Your task to perform on an android device: turn on the 24-hour format for clock Image 0: 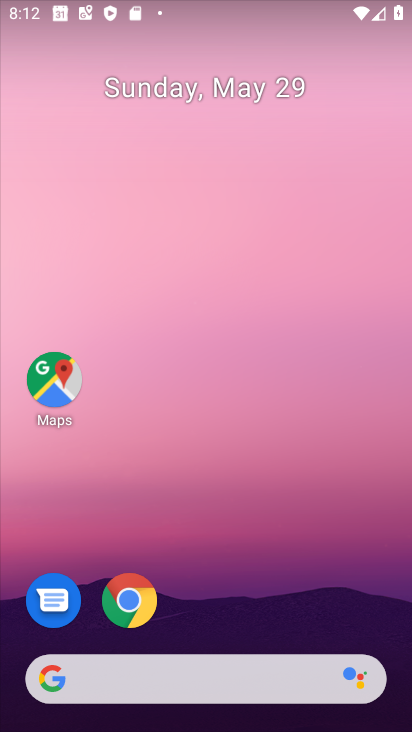
Step 0: drag from (302, 543) to (274, 135)
Your task to perform on an android device: turn on the 24-hour format for clock Image 1: 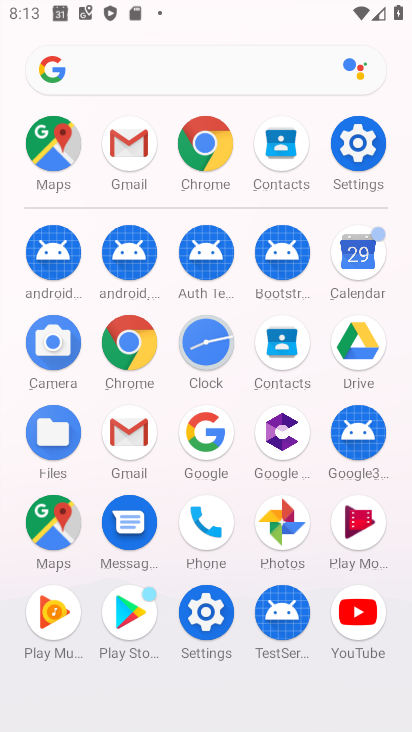
Step 1: click (223, 351)
Your task to perform on an android device: turn on the 24-hour format for clock Image 2: 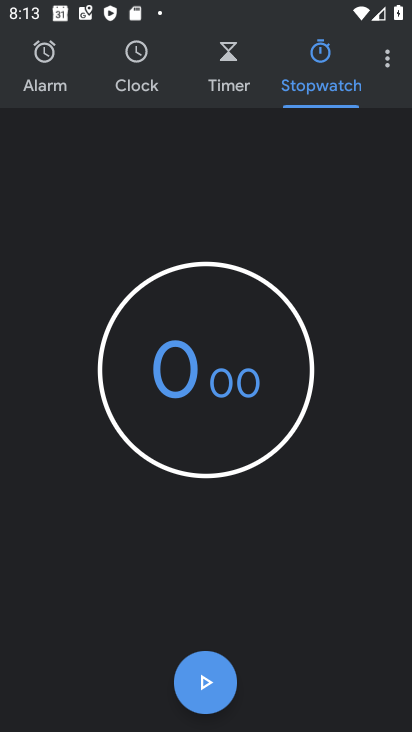
Step 2: drag from (388, 71) to (279, 116)
Your task to perform on an android device: turn on the 24-hour format for clock Image 3: 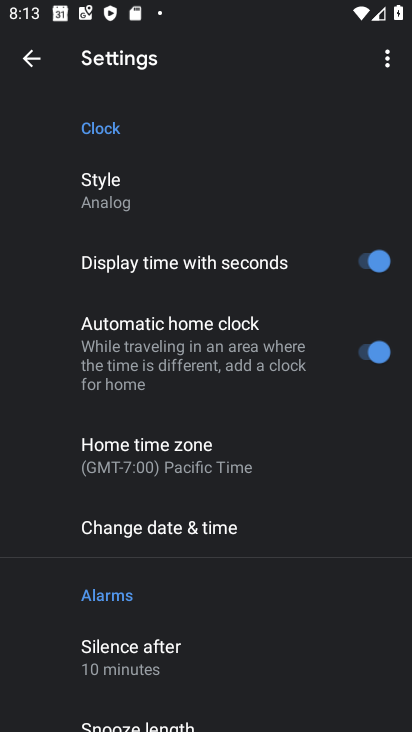
Step 3: click (196, 531)
Your task to perform on an android device: turn on the 24-hour format for clock Image 4: 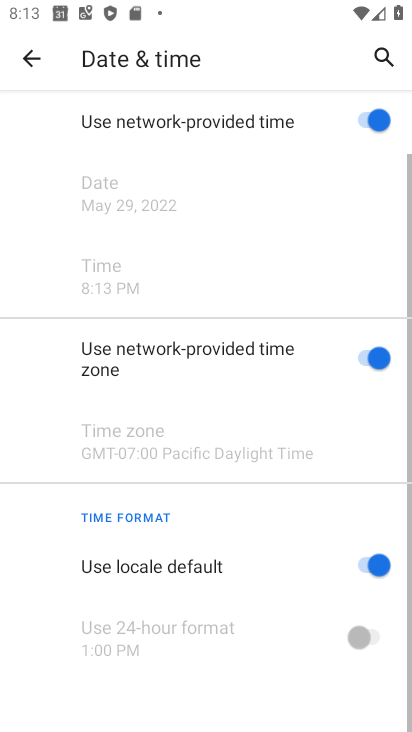
Step 4: drag from (230, 597) to (242, 364)
Your task to perform on an android device: turn on the 24-hour format for clock Image 5: 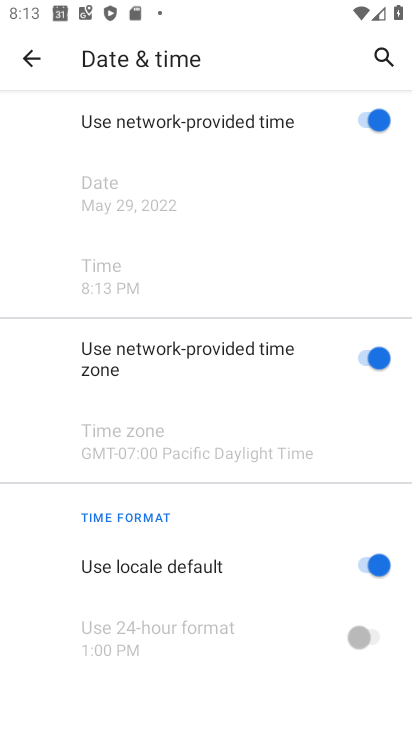
Step 5: click (367, 565)
Your task to perform on an android device: turn on the 24-hour format for clock Image 6: 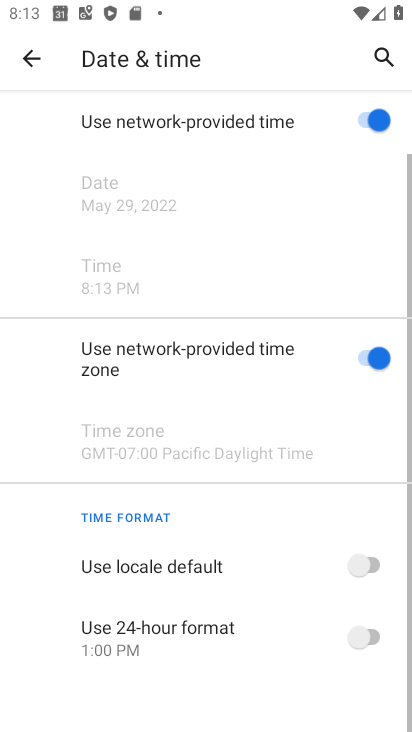
Step 6: click (374, 639)
Your task to perform on an android device: turn on the 24-hour format for clock Image 7: 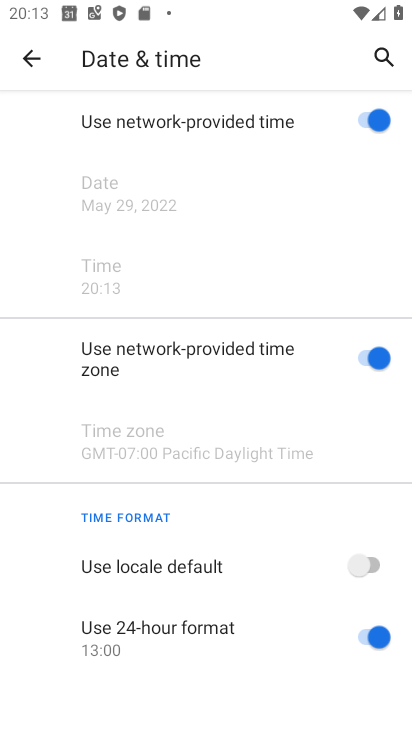
Step 7: task complete